Your task to perform on an android device: toggle sleep mode Image 0: 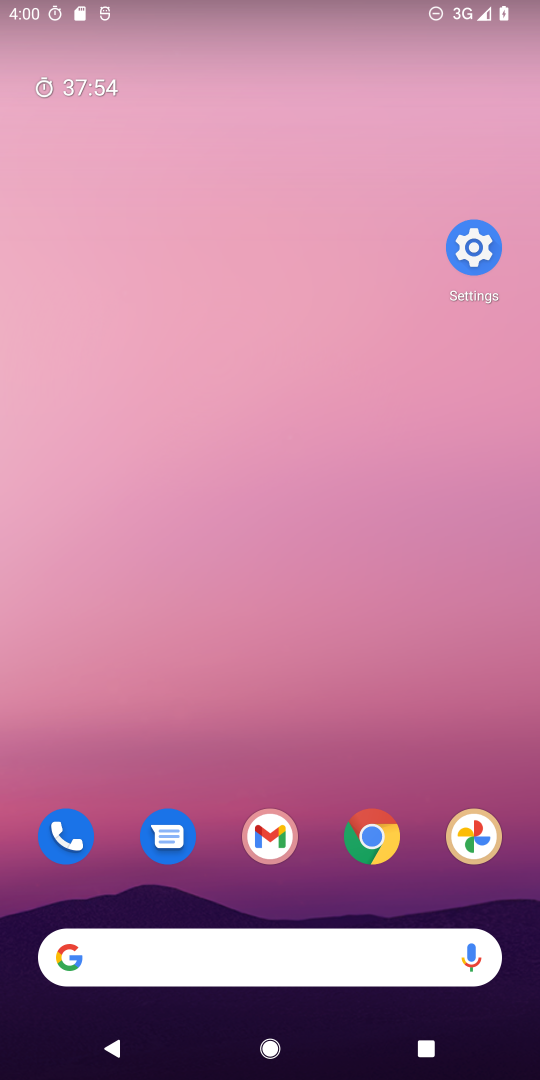
Step 0: drag from (209, 829) to (249, 176)
Your task to perform on an android device: toggle sleep mode Image 1: 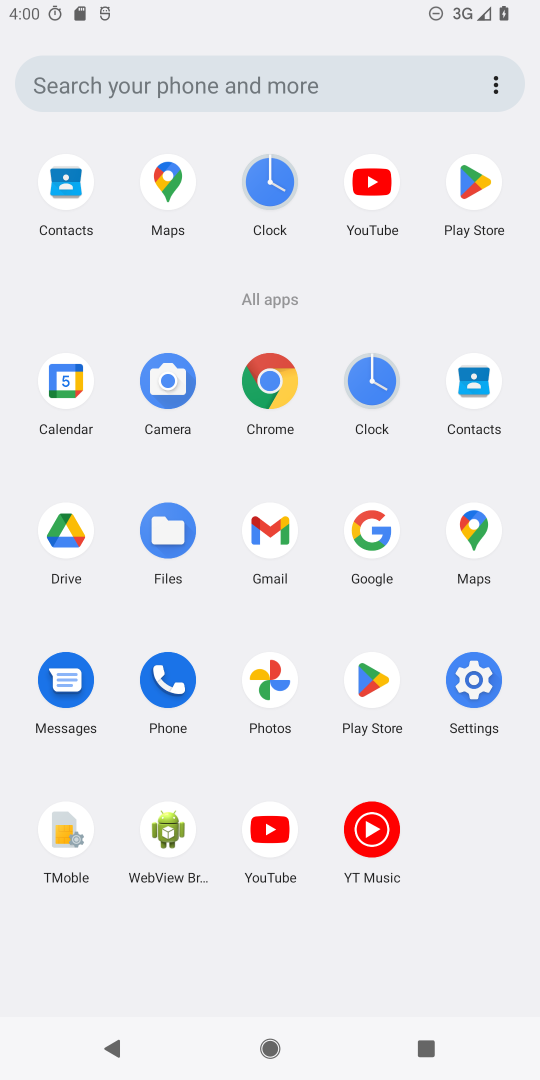
Step 1: click (467, 696)
Your task to perform on an android device: toggle sleep mode Image 2: 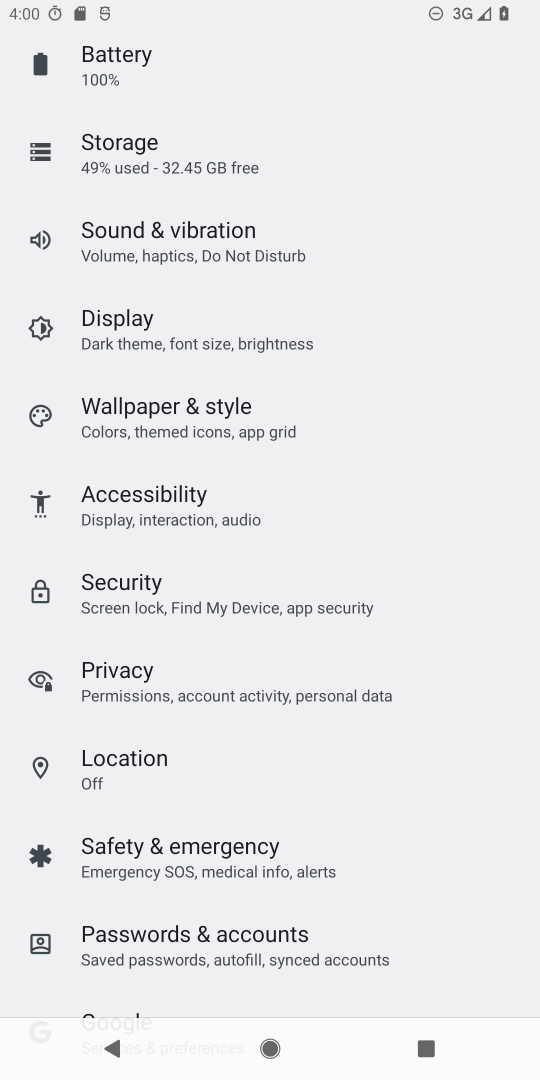
Step 2: drag from (226, 194) to (217, 601)
Your task to perform on an android device: toggle sleep mode Image 3: 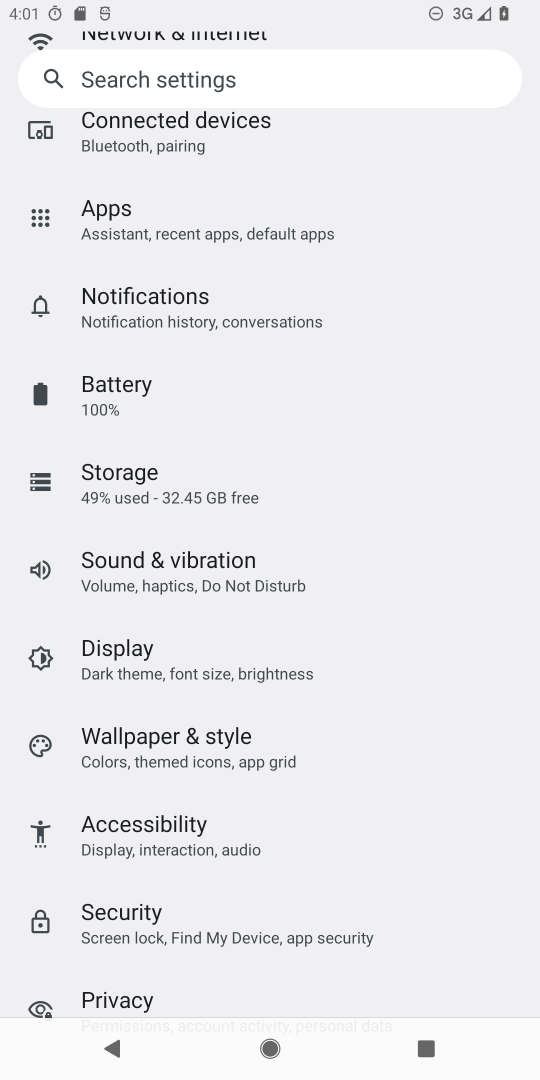
Step 3: click (231, 78)
Your task to perform on an android device: toggle sleep mode Image 4: 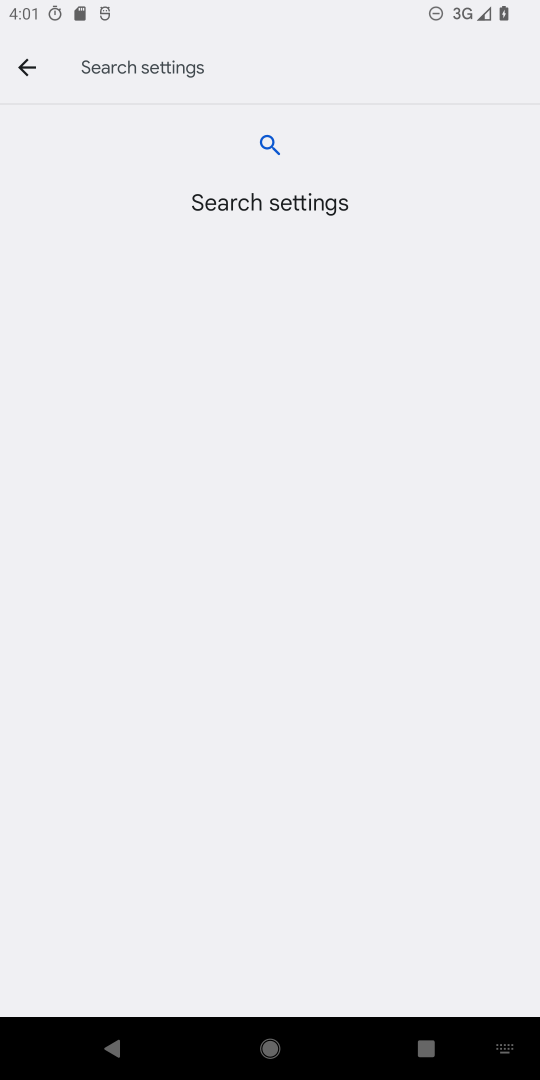
Step 4: type "sleep mode"
Your task to perform on an android device: toggle sleep mode Image 5: 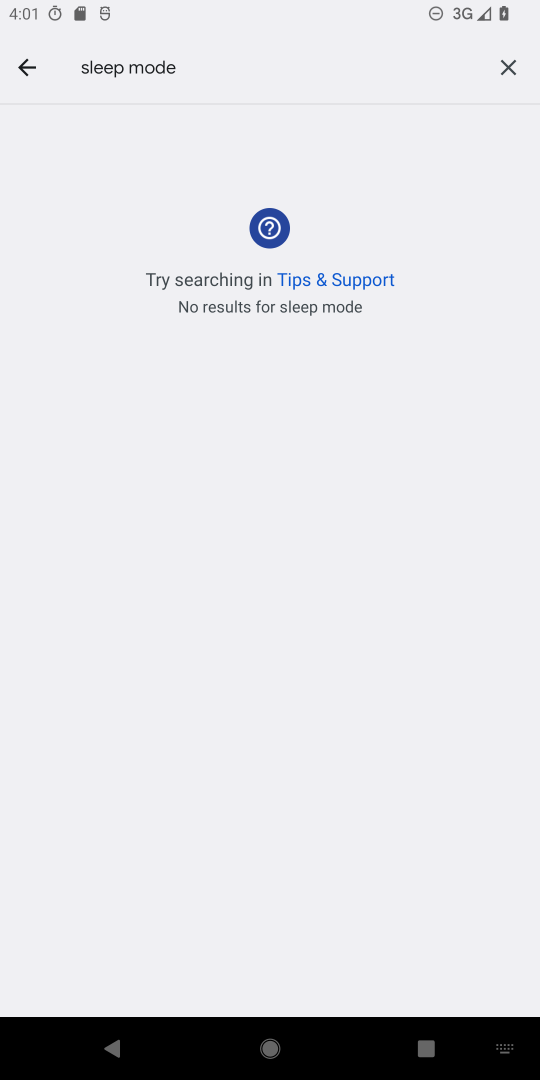
Step 5: task complete